Your task to perform on an android device: toggle data saver in the chrome app Image 0: 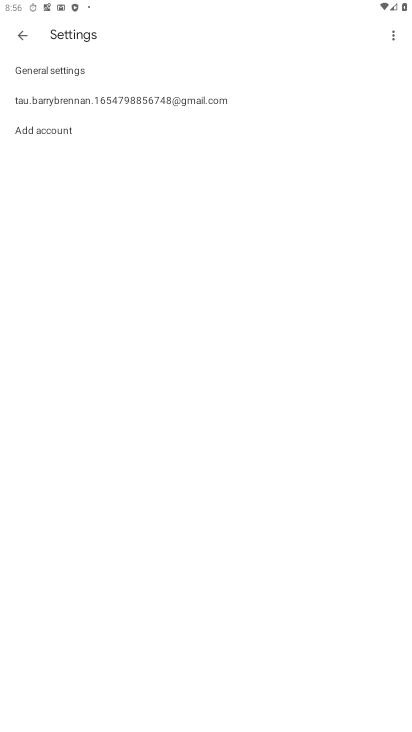
Step 0: press back button
Your task to perform on an android device: toggle data saver in the chrome app Image 1: 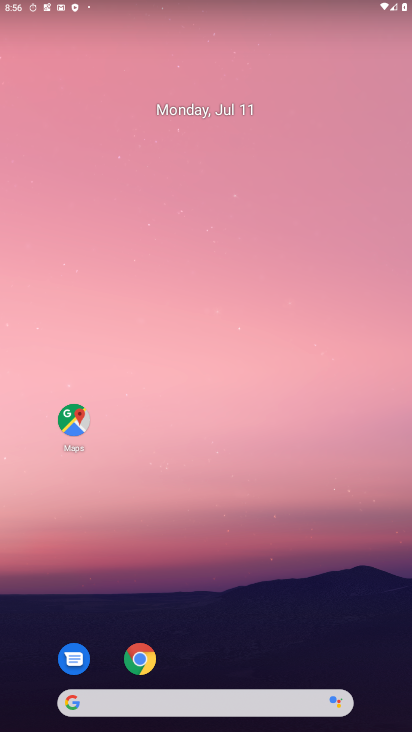
Step 1: click (175, 8)
Your task to perform on an android device: toggle data saver in the chrome app Image 2: 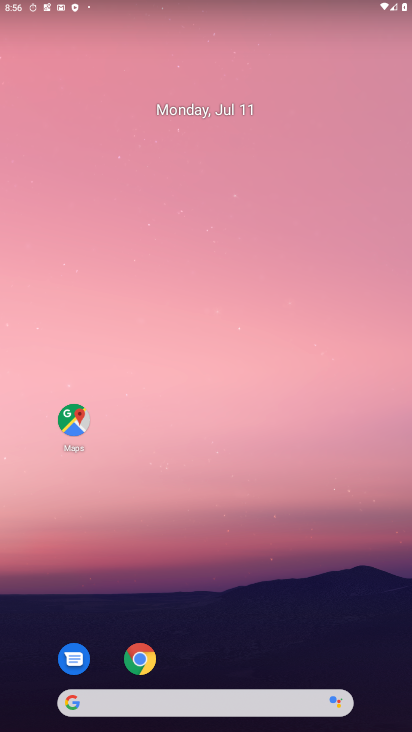
Step 2: drag from (279, 648) to (296, 12)
Your task to perform on an android device: toggle data saver in the chrome app Image 3: 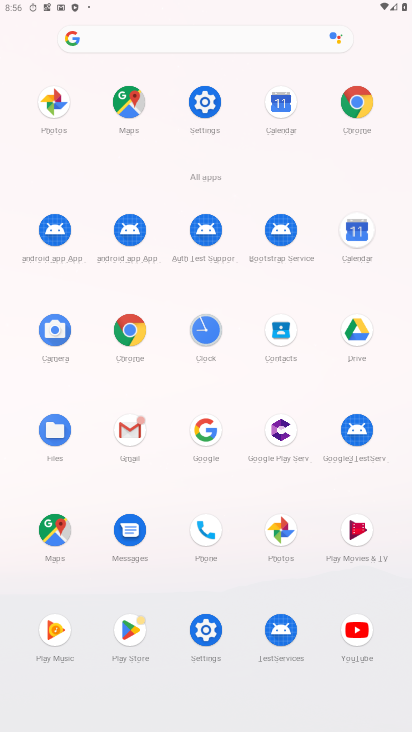
Step 3: click (352, 90)
Your task to perform on an android device: toggle data saver in the chrome app Image 4: 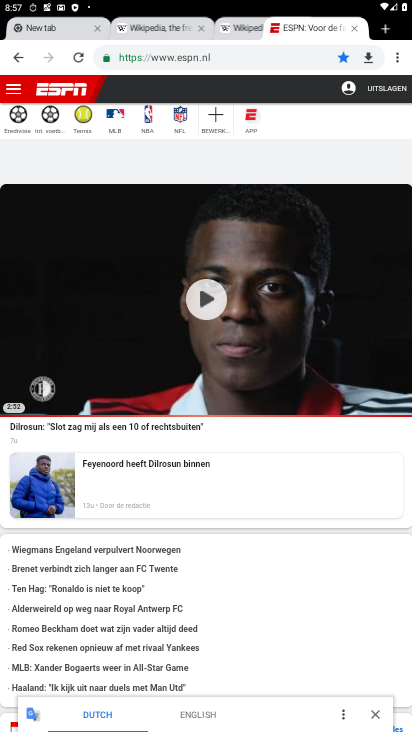
Step 4: click (388, 57)
Your task to perform on an android device: toggle data saver in the chrome app Image 5: 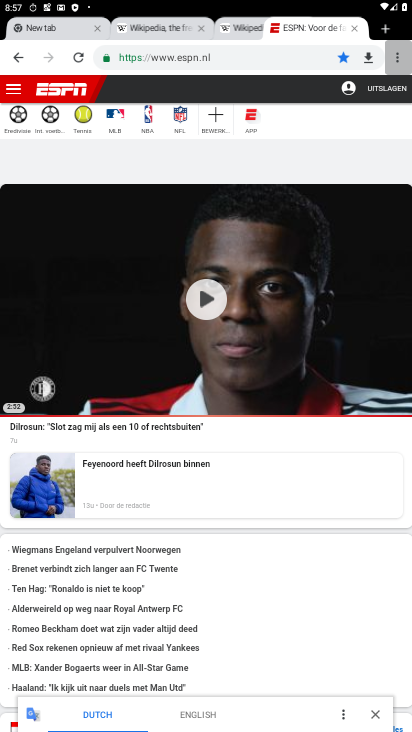
Step 5: click (396, 58)
Your task to perform on an android device: toggle data saver in the chrome app Image 6: 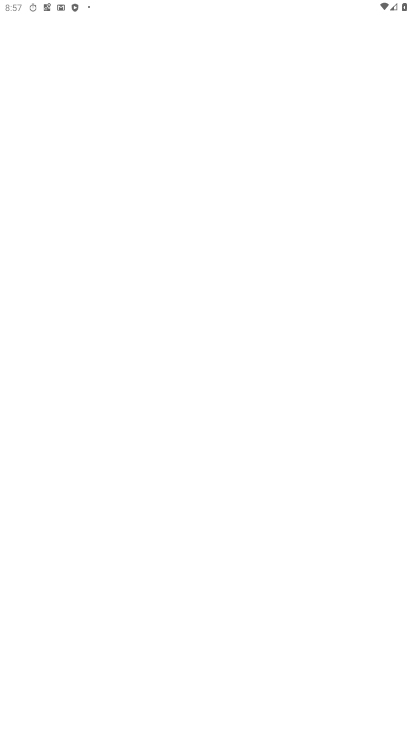
Step 6: press back button
Your task to perform on an android device: toggle data saver in the chrome app Image 7: 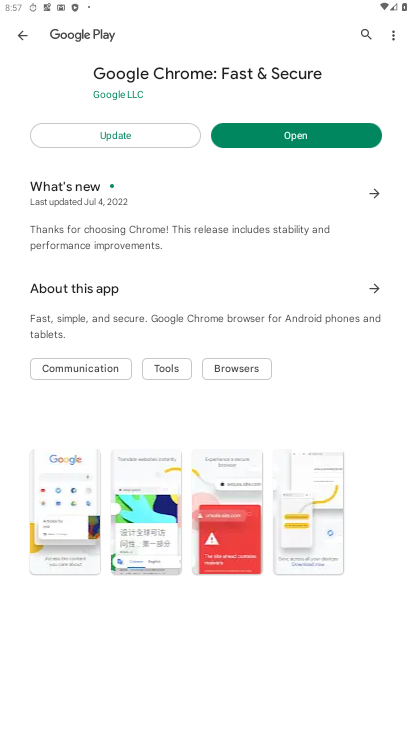
Step 7: press back button
Your task to perform on an android device: toggle data saver in the chrome app Image 8: 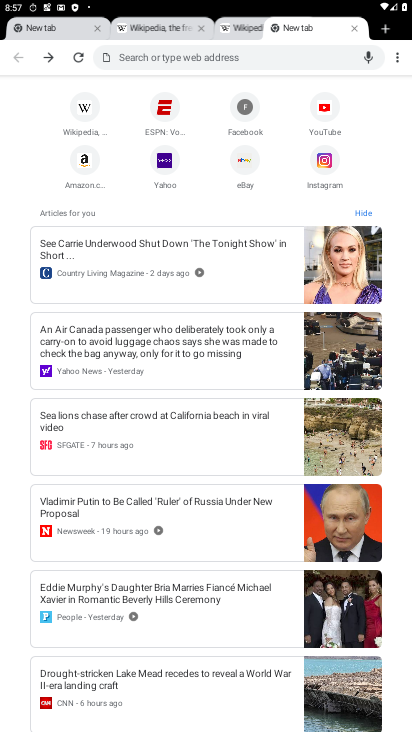
Step 8: click (393, 51)
Your task to perform on an android device: toggle data saver in the chrome app Image 9: 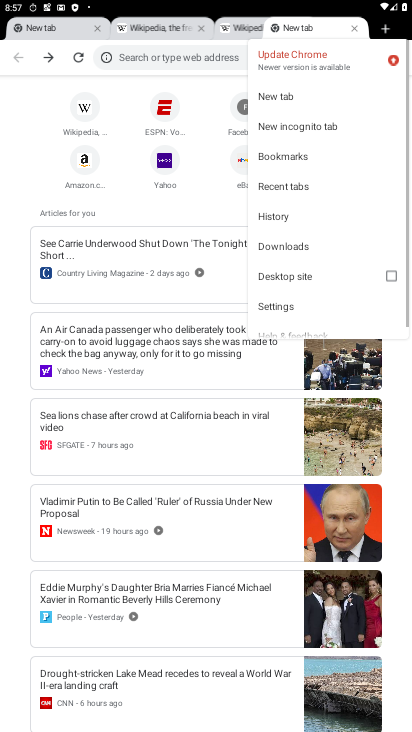
Step 9: drag from (392, 57) to (272, 291)
Your task to perform on an android device: toggle data saver in the chrome app Image 10: 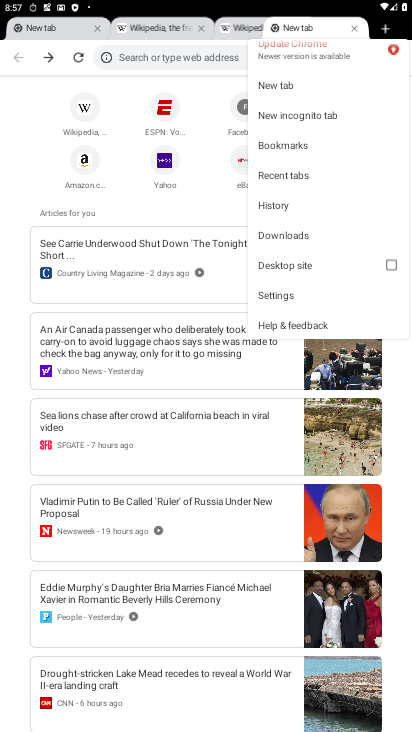
Step 10: click (273, 293)
Your task to perform on an android device: toggle data saver in the chrome app Image 11: 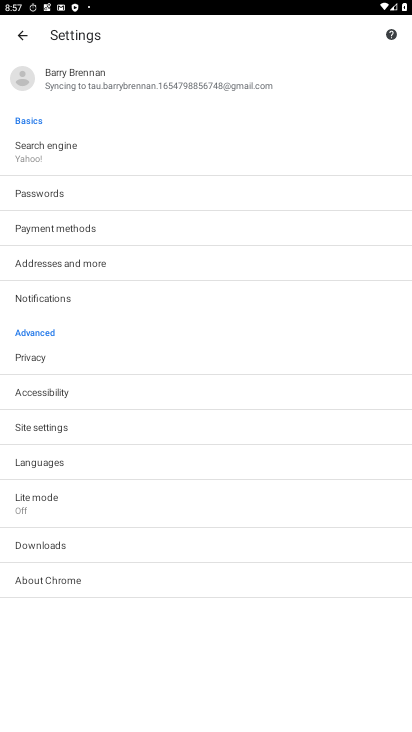
Step 11: task complete